Your task to perform on an android device: Open calendar and show me the fourth week of next month Image 0: 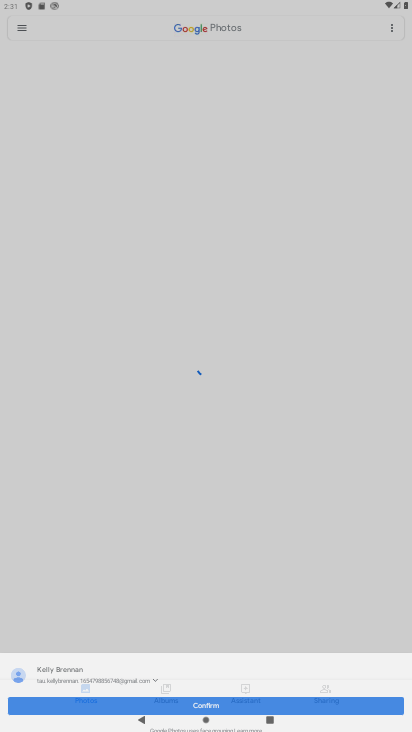
Step 0: press home button
Your task to perform on an android device: Open calendar and show me the fourth week of next month Image 1: 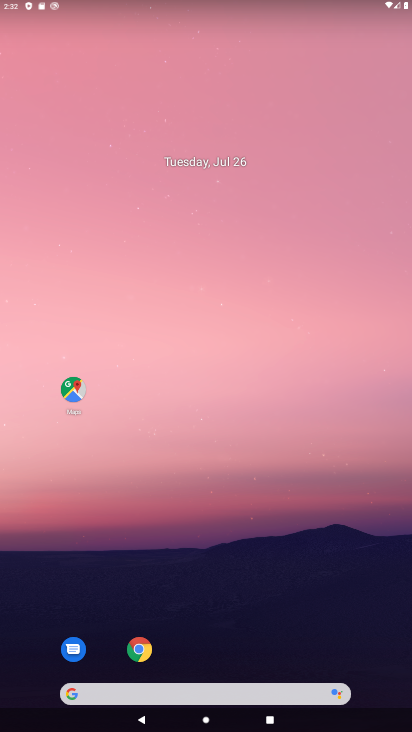
Step 1: click (190, 160)
Your task to perform on an android device: Open calendar and show me the fourth week of next month Image 2: 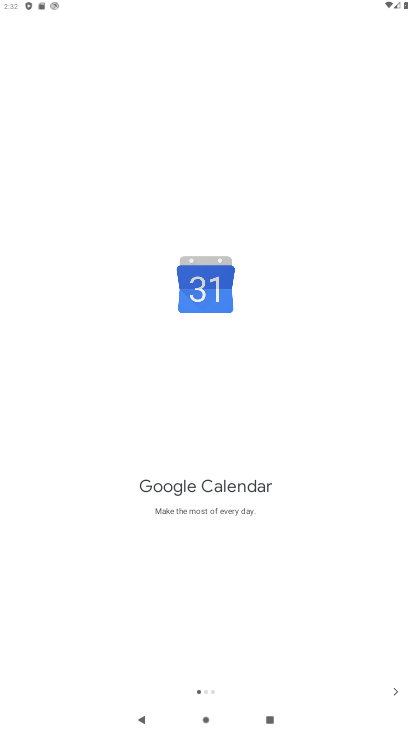
Step 2: click (387, 696)
Your task to perform on an android device: Open calendar and show me the fourth week of next month Image 3: 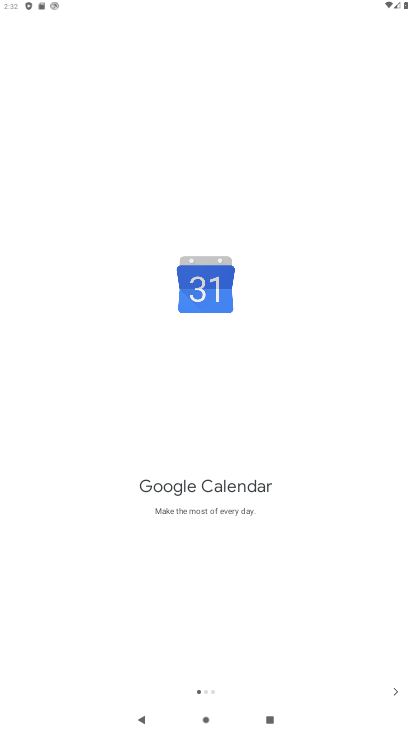
Step 3: click (387, 696)
Your task to perform on an android device: Open calendar and show me the fourth week of next month Image 4: 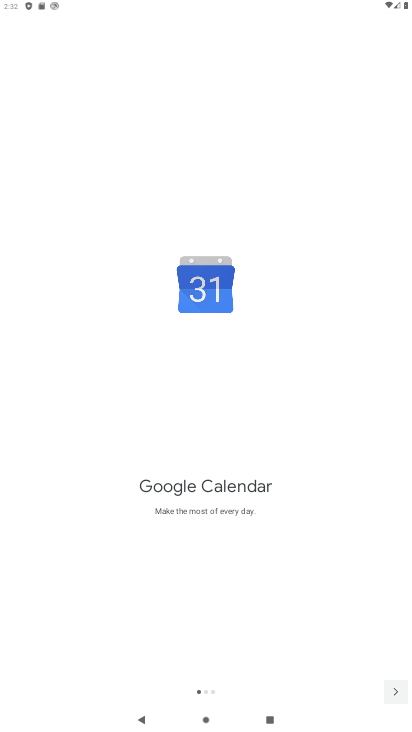
Step 4: click (387, 696)
Your task to perform on an android device: Open calendar and show me the fourth week of next month Image 5: 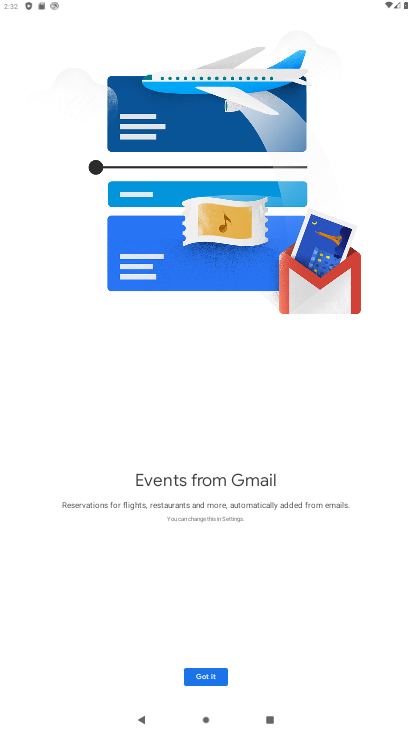
Step 5: click (387, 696)
Your task to perform on an android device: Open calendar and show me the fourth week of next month Image 6: 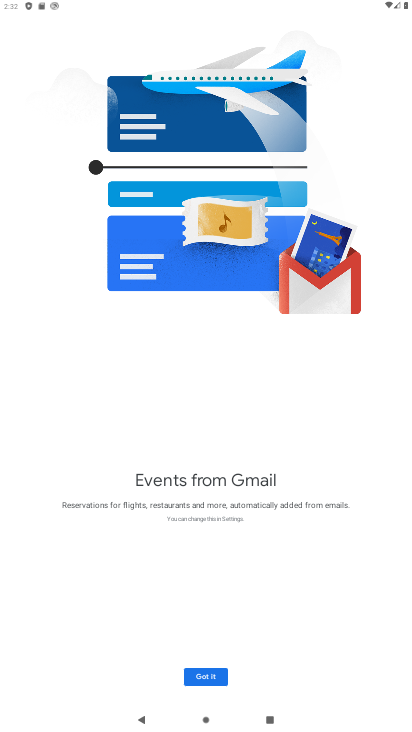
Step 6: click (387, 696)
Your task to perform on an android device: Open calendar and show me the fourth week of next month Image 7: 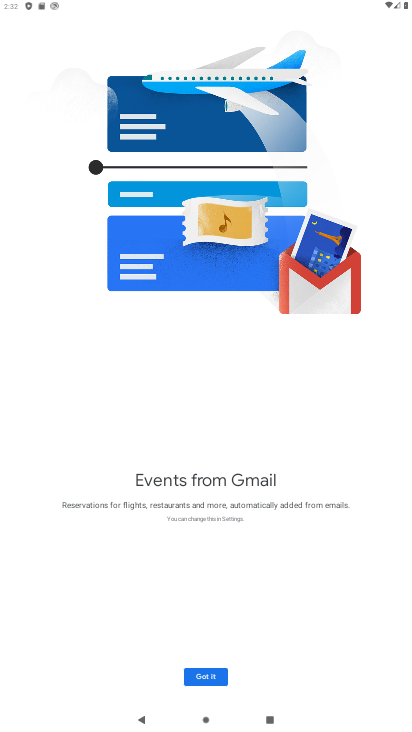
Step 7: click (387, 696)
Your task to perform on an android device: Open calendar and show me the fourth week of next month Image 8: 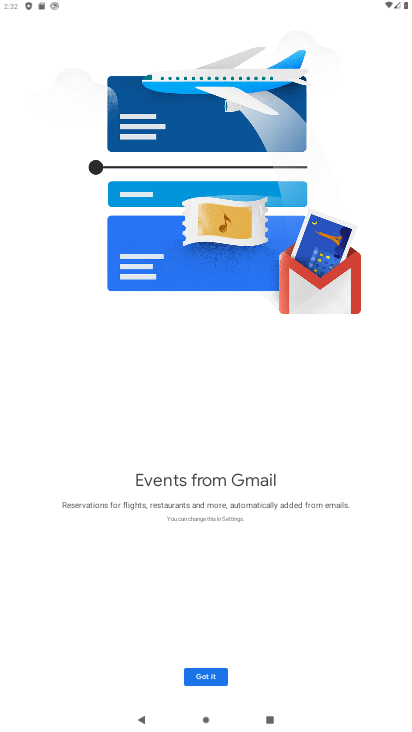
Step 8: click (205, 673)
Your task to perform on an android device: Open calendar and show me the fourth week of next month Image 9: 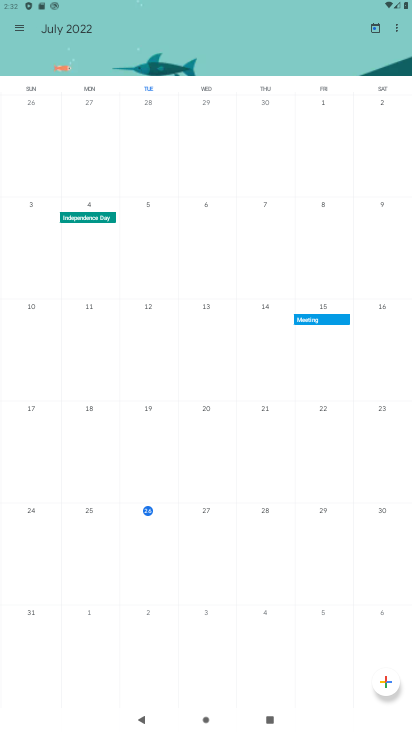
Step 9: task complete